Your task to perform on an android device: Open privacy settings Image 0: 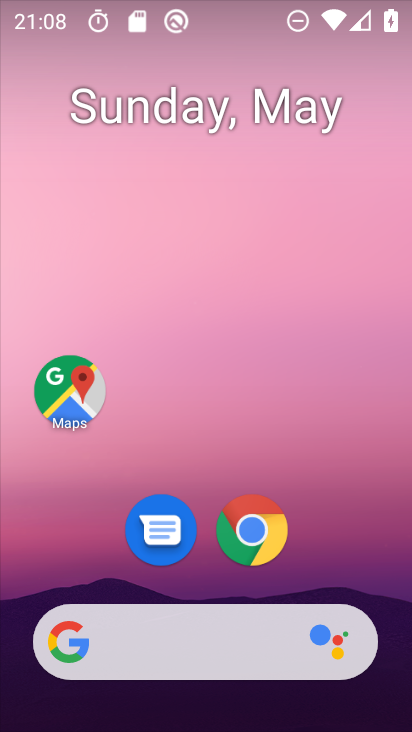
Step 0: drag from (272, 574) to (262, 64)
Your task to perform on an android device: Open privacy settings Image 1: 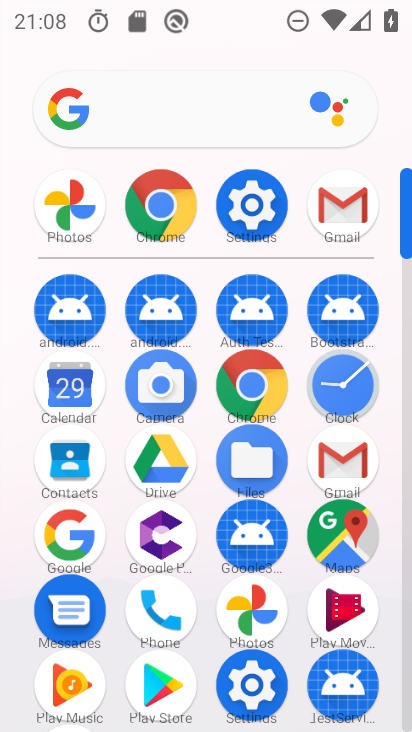
Step 1: click (271, 217)
Your task to perform on an android device: Open privacy settings Image 2: 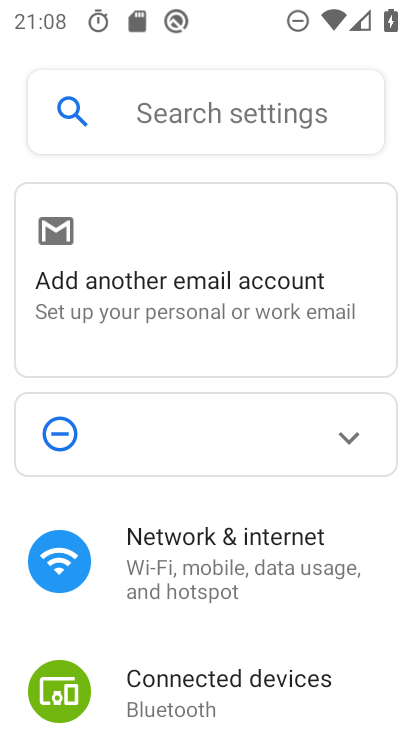
Step 2: click (202, 99)
Your task to perform on an android device: Open privacy settings Image 3: 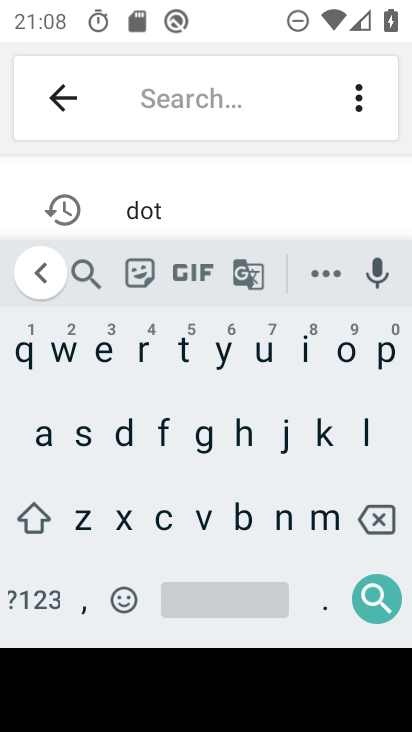
Step 3: click (387, 359)
Your task to perform on an android device: Open privacy settings Image 4: 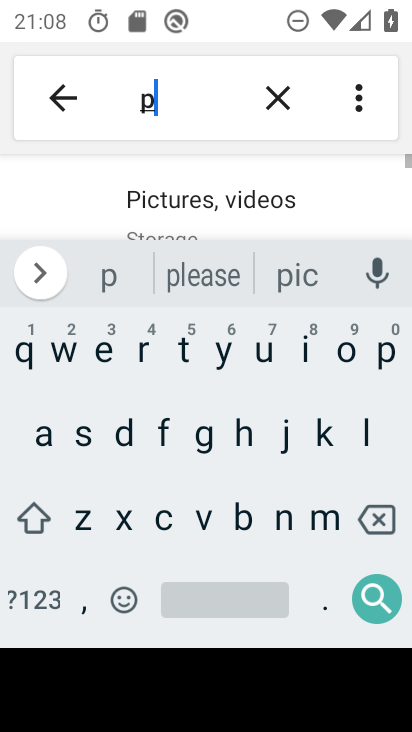
Step 4: click (143, 365)
Your task to perform on an android device: Open privacy settings Image 5: 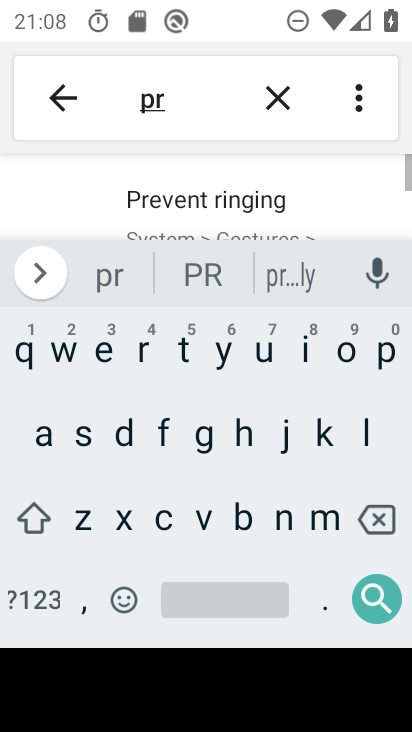
Step 5: click (307, 355)
Your task to perform on an android device: Open privacy settings Image 6: 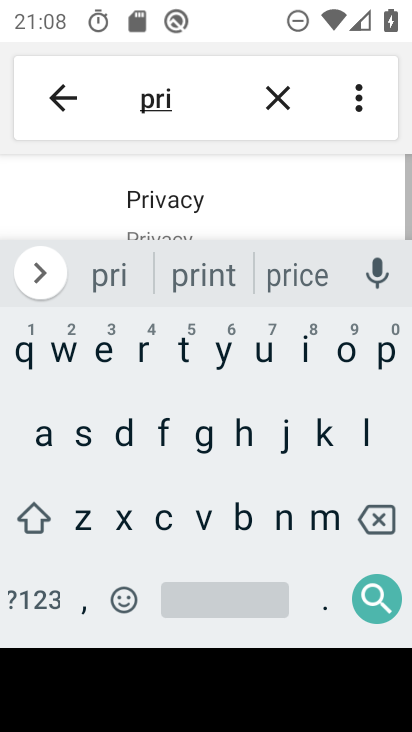
Step 6: click (190, 219)
Your task to perform on an android device: Open privacy settings Image 7: 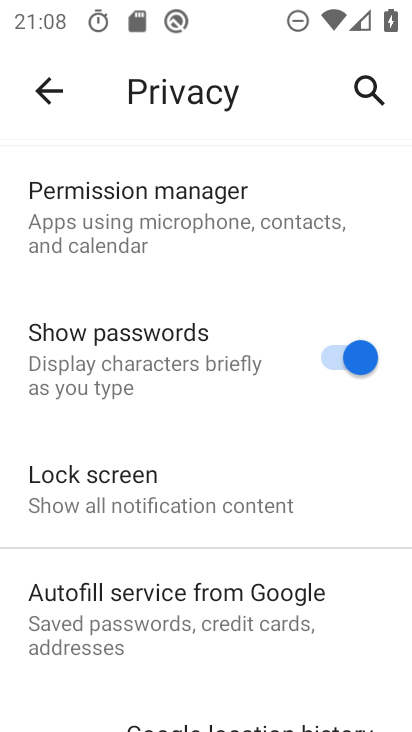
Step 7: task complete